Your task to perform on an android device: clear all cookies in the chrome app Image 0: 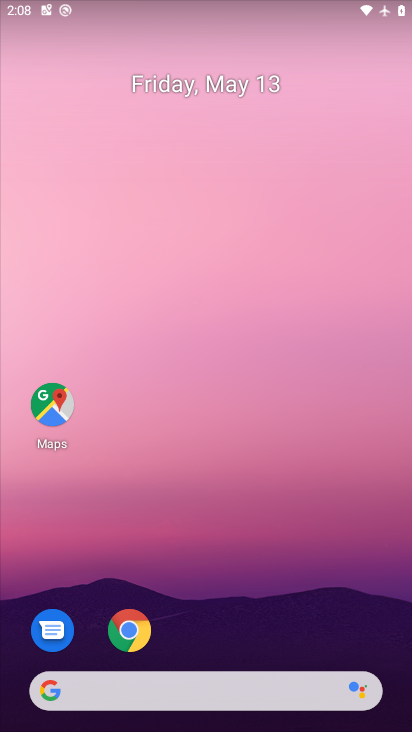
Step 0: drag from (224, 428) to (201, 235)
Your task to perform on an android device: clear all cookies in the chrome app Image 1: 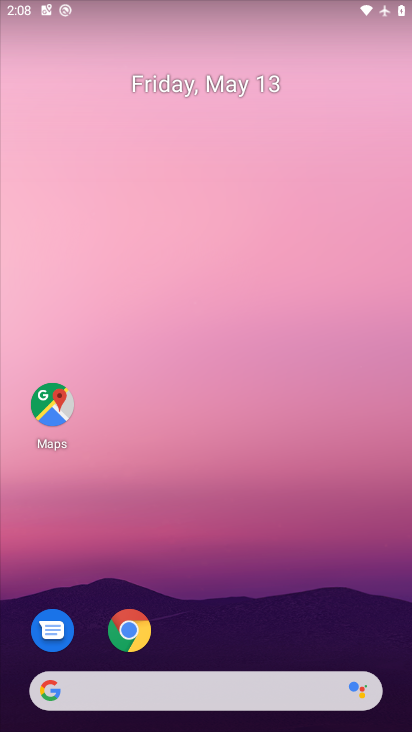
Step 1: drag from (248, 650) to (241, 205)
Your task to perform on an android device: clear all cookies in the chrome app Image 2: 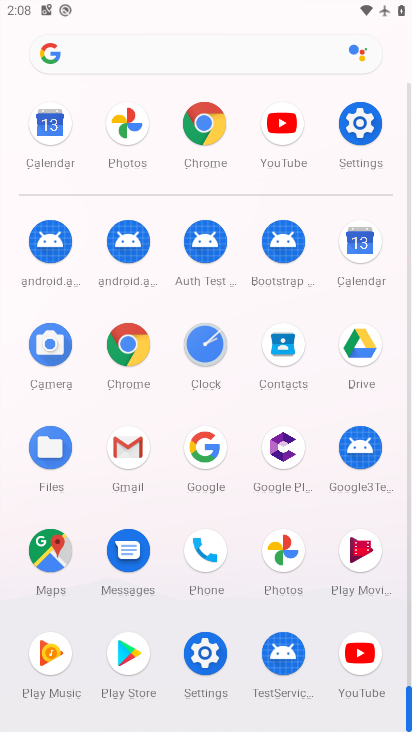
Step 2: click (134, 363)
Your task to perform on an android device: clear all cookies in the chrome app Image 3: 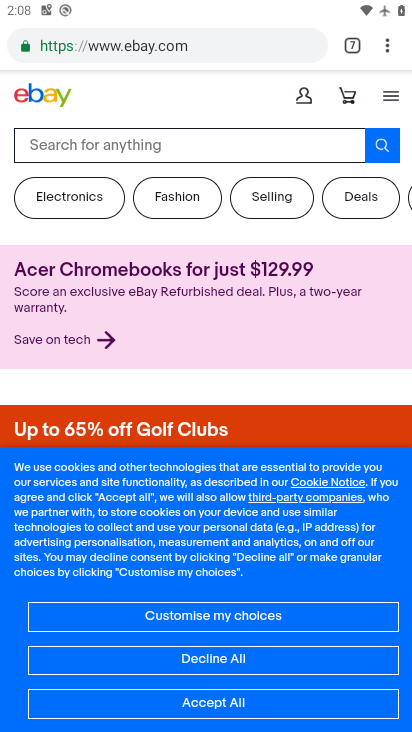
Step 3: click (387, 51)
Your task to perform on an android device: clear all cookies in the chrome app Image 4: 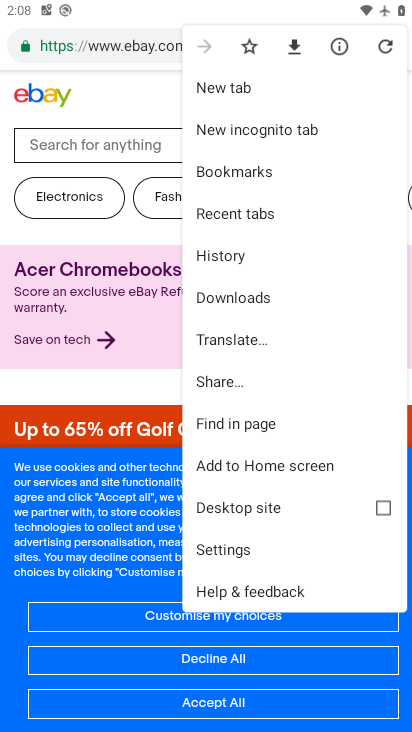
Step 4: click (242, 262)
Your task to perform on an android device: clear all cookies in the chrome app Image 5: 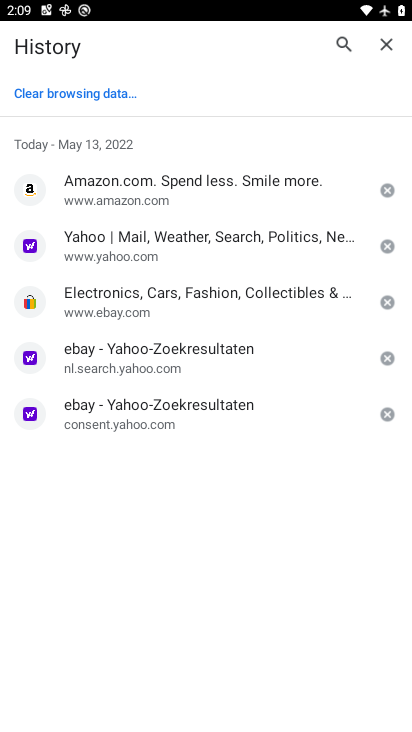
Step 5: click (114, 96)
Your task to perform on an android device: clear all cookies in the chrome app Image 6: 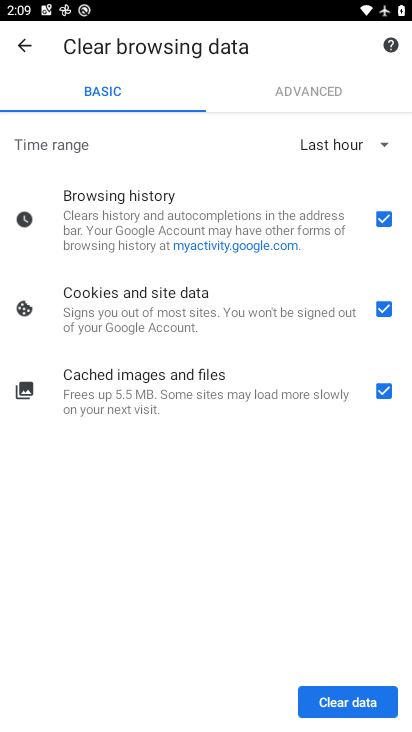
Step 6: click (315, 703)
Your task to perform on an android device: clear all cookies in the chrome app Image 7: 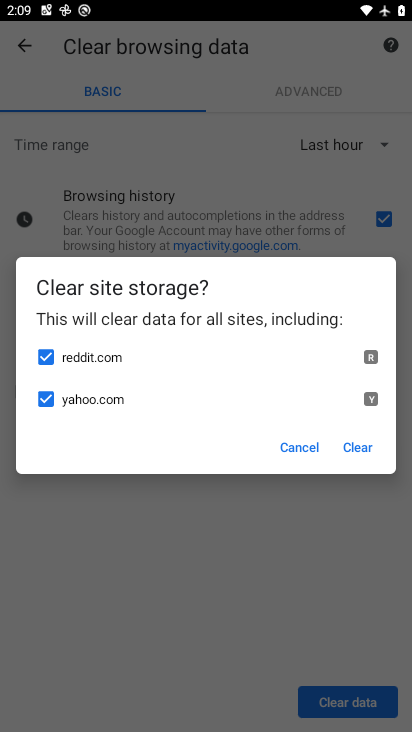
Step 7: click (368, 451)
Your task to perform on an android device: clear all cookies in the chrome app Image 8: 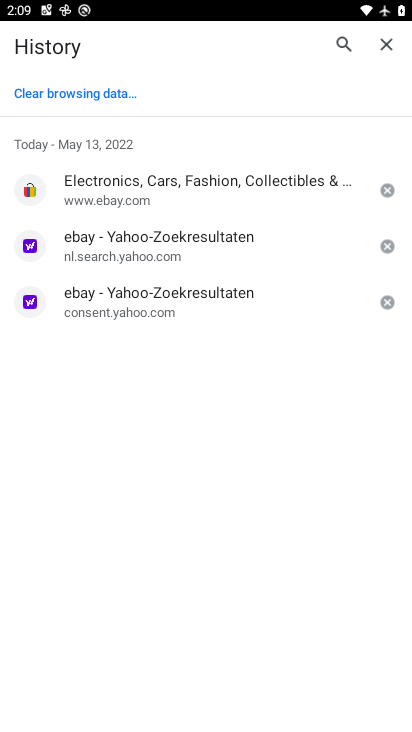
Step 8: task complete